Your task to perform on an android device: check storage Image 0: 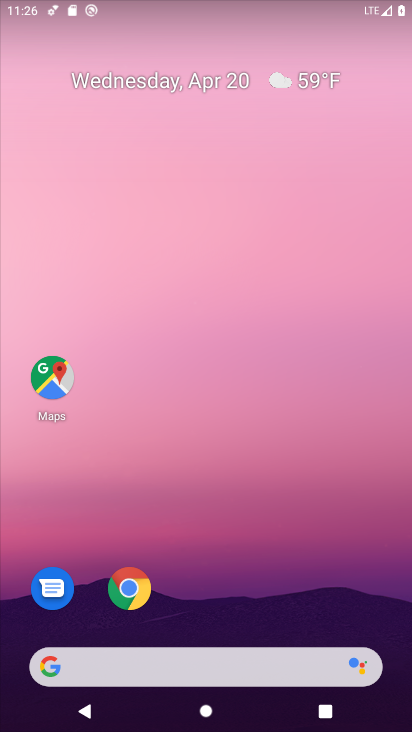
Step 0: drag from (210, 576) to (207, 8)
Your task to perform on an android device: check storage Image 1: 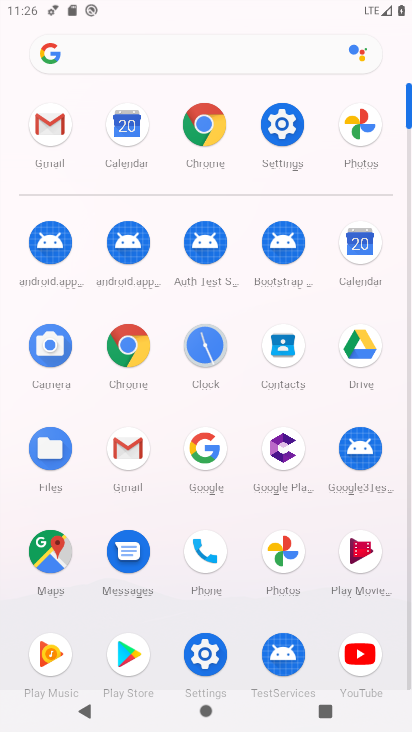
Step 1: click (289, 130)
Your task to perform on an android device: check storage Image 2: 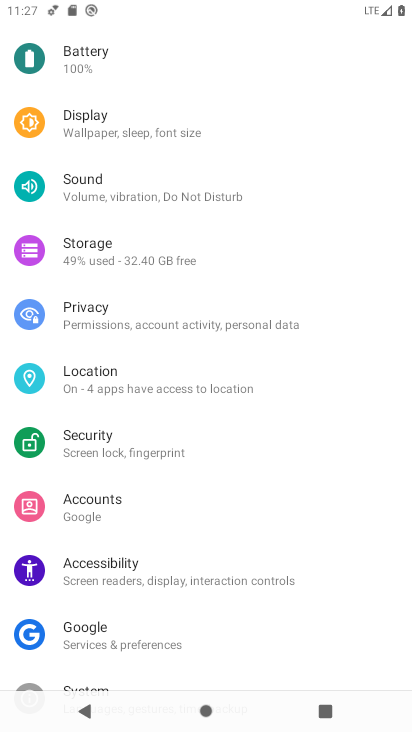
Step 2: click (85, 251)
Your task to perform on an android device: check storage Image 3: 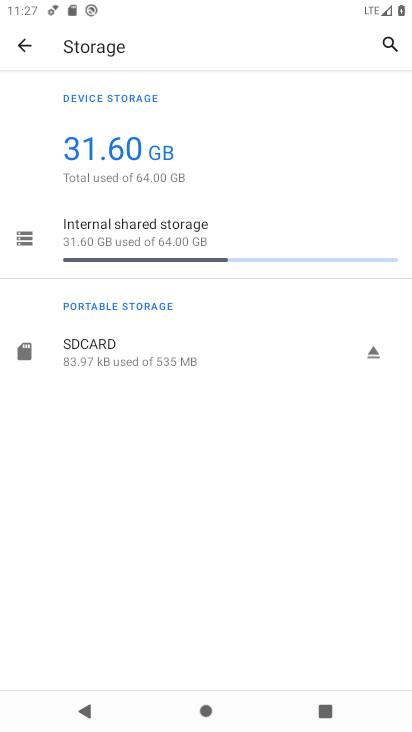
Step 3: task complete